Your task to perform on an android device: toggle pop-ups in chrome Image 0: 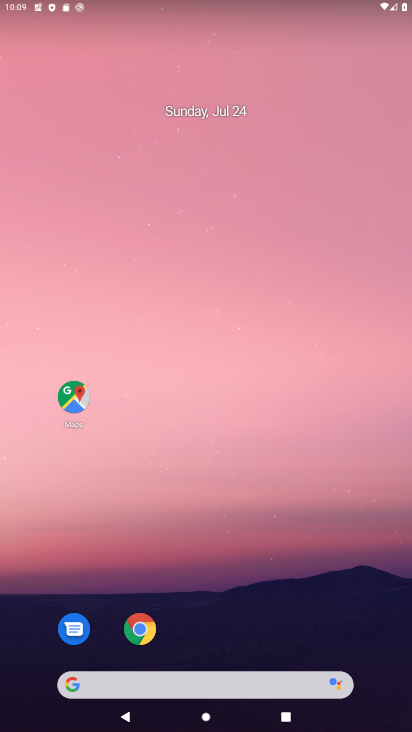
Step 0: drag from (194, 483) to (248, 208)
Your task to perform on an android device: toggle pop-ups in chrome Image 1: 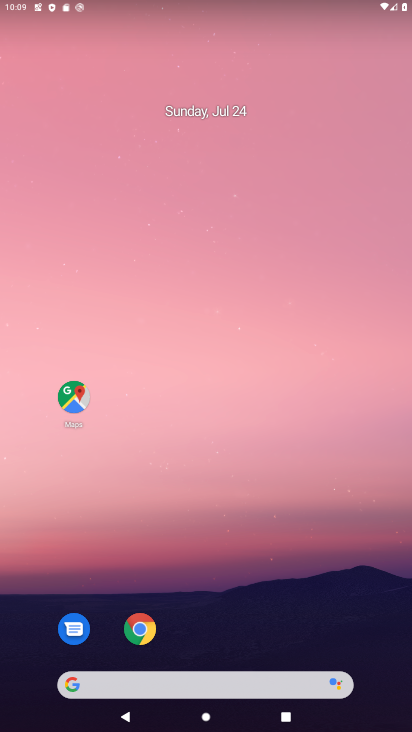
Step 1: click (133, 622)
Your task to perform on an android device: toggle pop-ups in chrome Image 2: 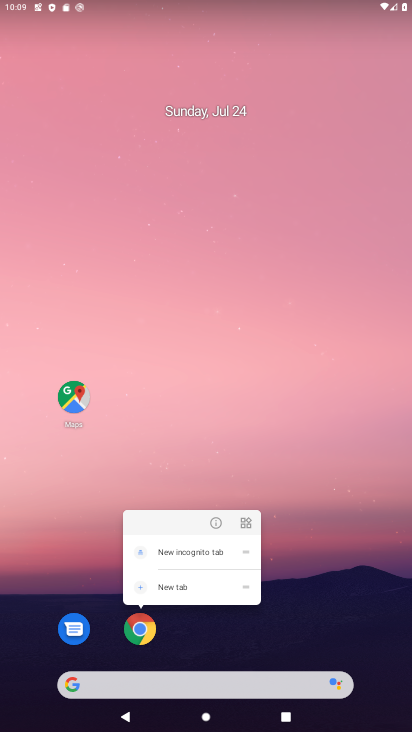
Step 2: click (213, 517)
Your task to perform on an android device: toggle pop-ups in chrome Image 3: 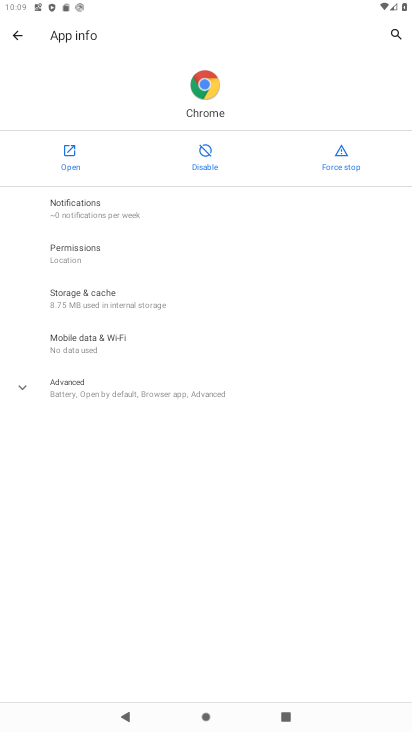
Step 3: click (60, 162)
Your task to perform on an android device: toggle pop-ups in chrome Image 4: 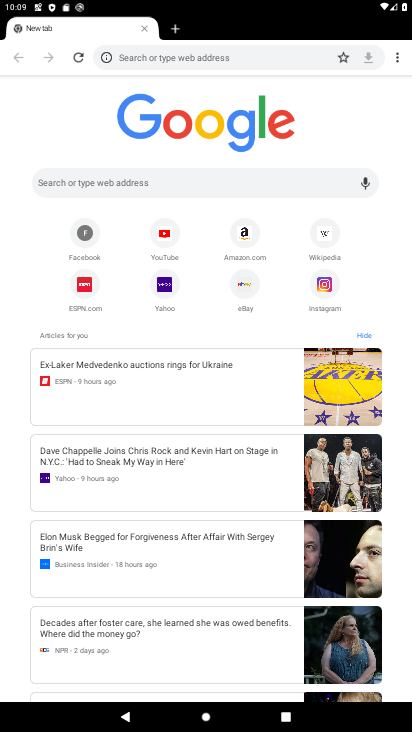
Step 4: drag from (396, 52) to (290, 263)
Your task to perform on an android device: toggle pop-ups in chrome Image 5: 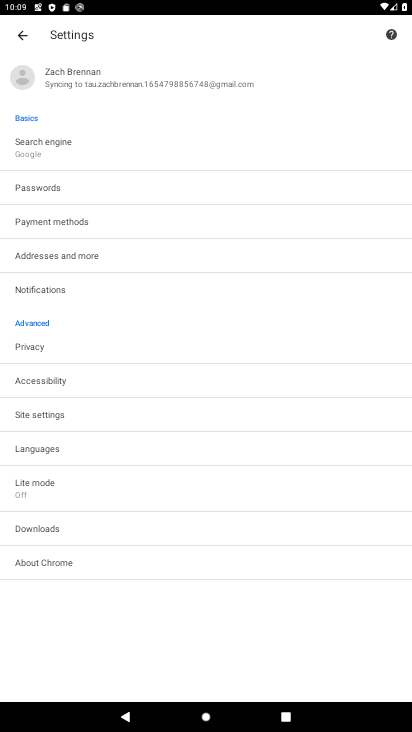
Step 5: click (64, 411)
Your task to perform on an android device: toggle pop-ups in chrome Image 6: 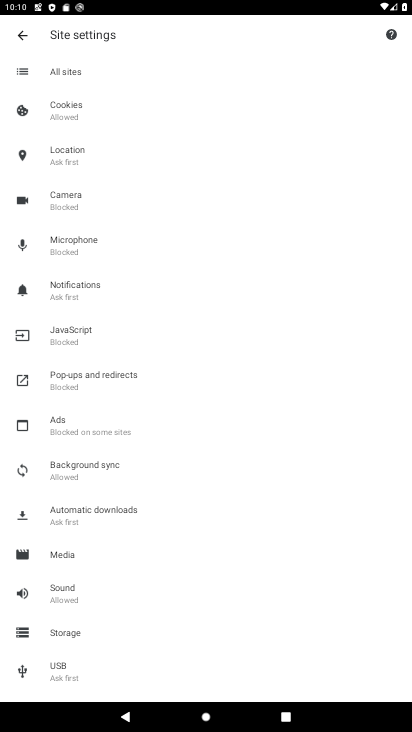
Step 6: click (87, 373)
Your task to perform on an android device: toggle pop-ups in chrome Image 7: 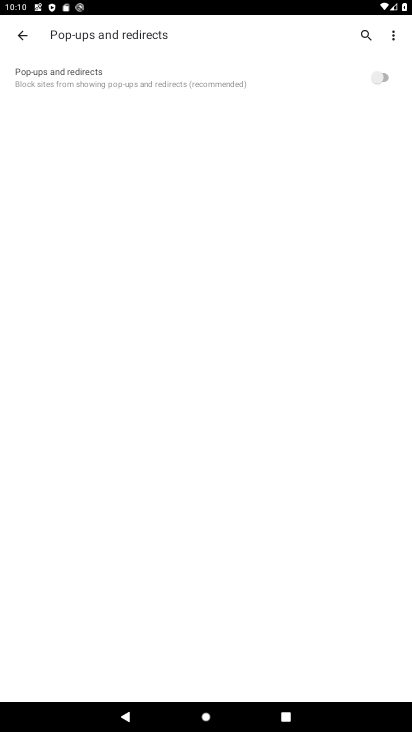
Step 7: click (325, 75)
Your task to perform on an android device: toggle pop-ups in chrome Image 8: 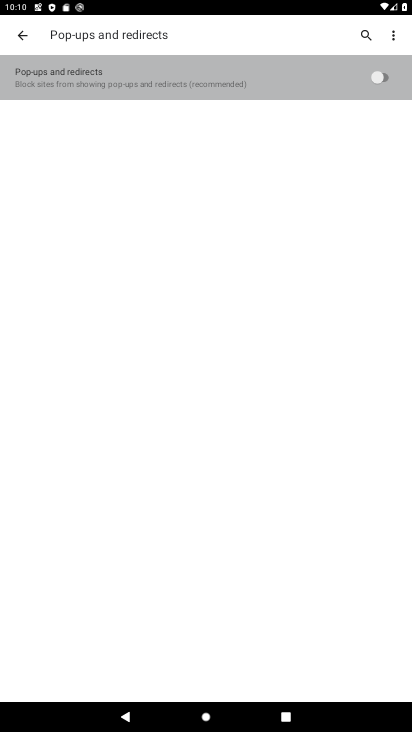
Step 8: task complete